Your task to perform on an android device: set the timer Image 0: 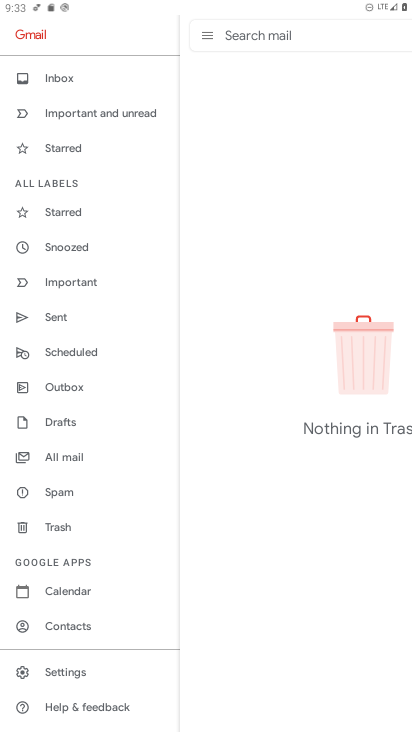
Step 0: press home button
Your task to perform on an android device: set the timer Image 1: 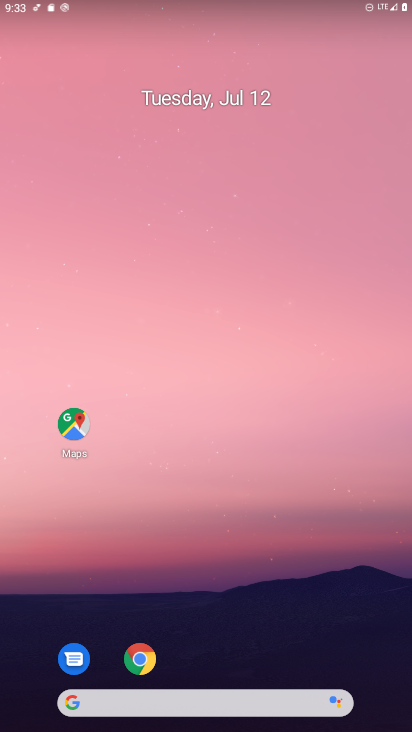
Step 1: drag from (204, 703) to (286, 179)
Your task to perform on an android device: set the timer Image 2: 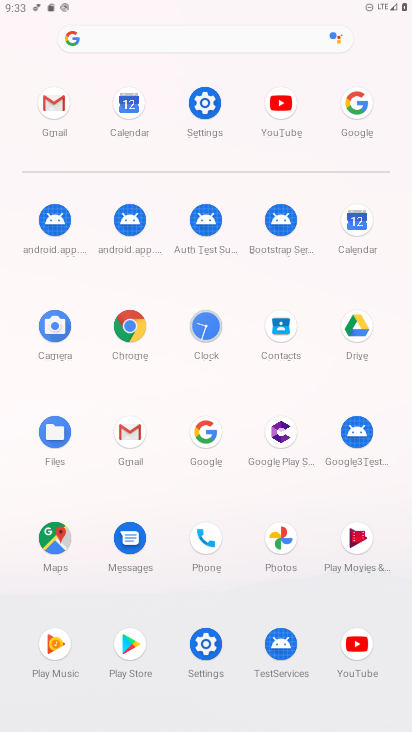
Step 2: click (206, 323)
Your task to perform on an android device: set the timer Image 3: 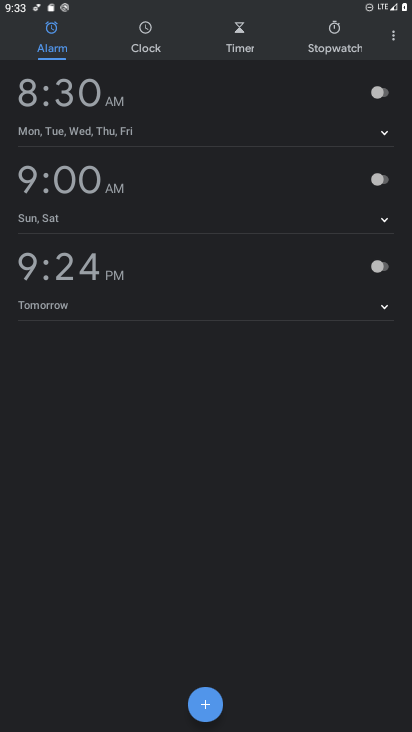
Step 3: click (242, 39)
Your task to perform on an android device: set the timer Image 4: 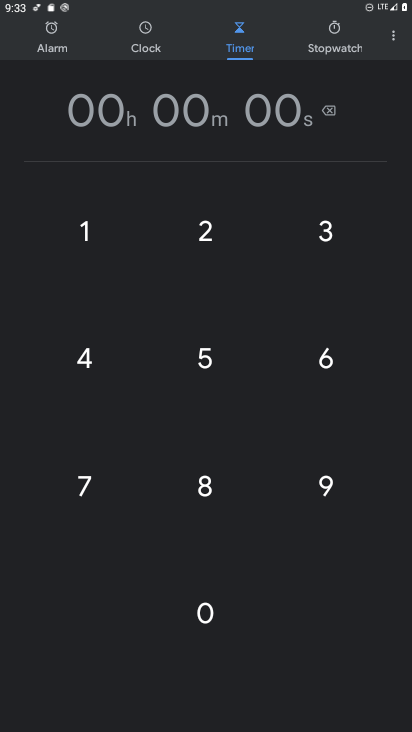
Step 4: type "1357"
Your task to perform on an android device: set the timer Image 5: 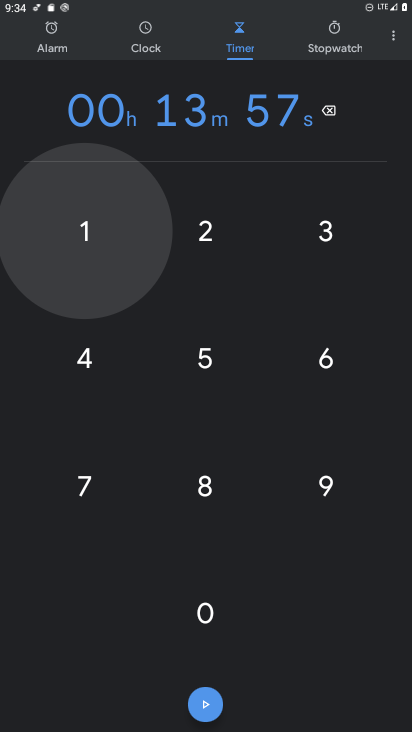
Step 5: click (205, 705)
Your task to perform on an android device: set the timer Image 6: 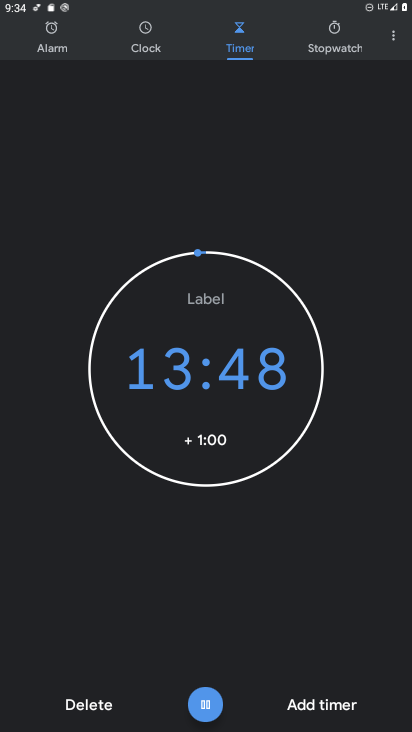
Step 6: click (209, 709)
Your task to perform on an android device: set the timer Image 7: 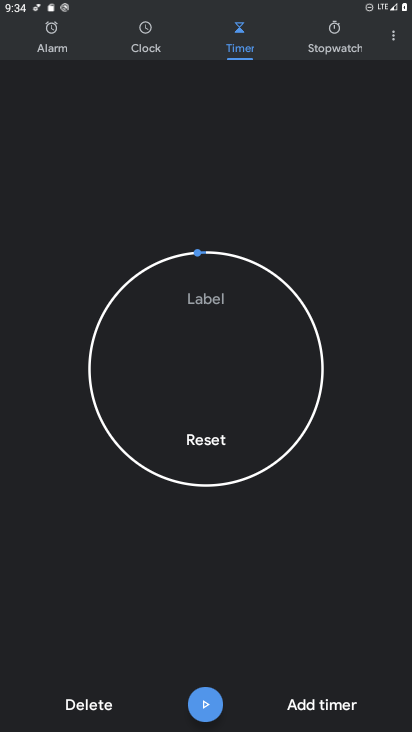
Step 7: task complete